Your task to perform on an android device: Go to Android settings Image 0: 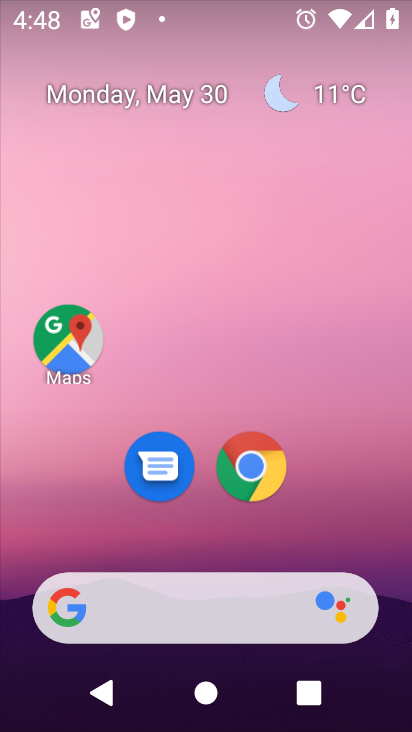
Step 0: drag from (341, 533) to (271, 210)
Your task to perform on an android device: Go to Android settings Image 1: 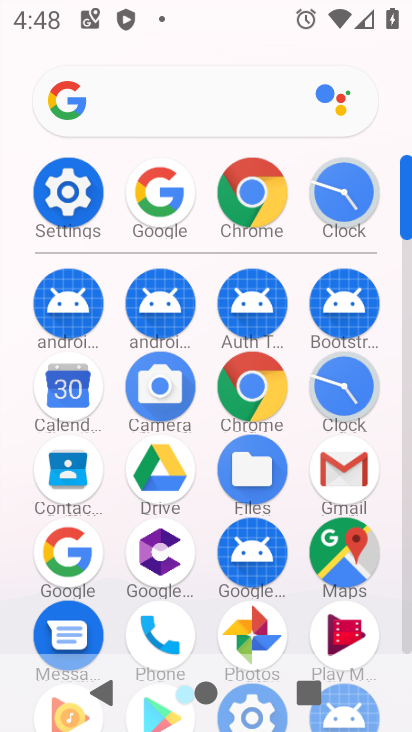
Step 1: click (78, 178)
Your task to perform on an android device: Go to Android settings Image 2: 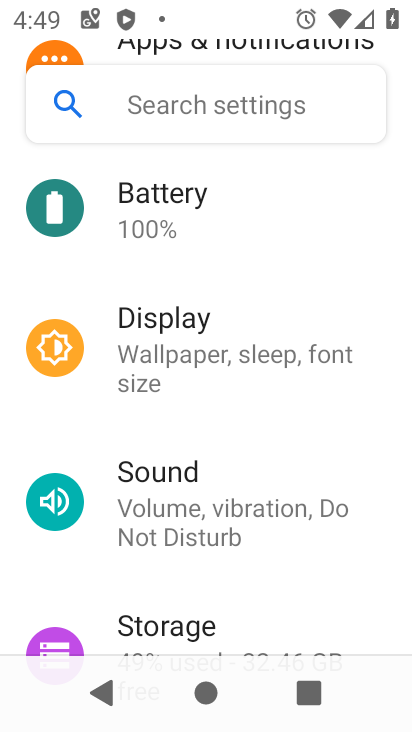
Step 2: task complete